Your task to perform on an android device: toggle priority inbox in the gmail app Image 0: 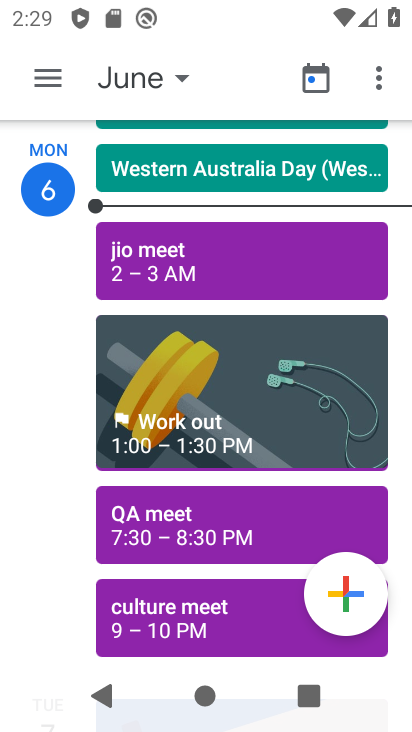
Step 0: press home button
Your task to perform on an android device: toggle priority inbox in the gmail app Image 1: 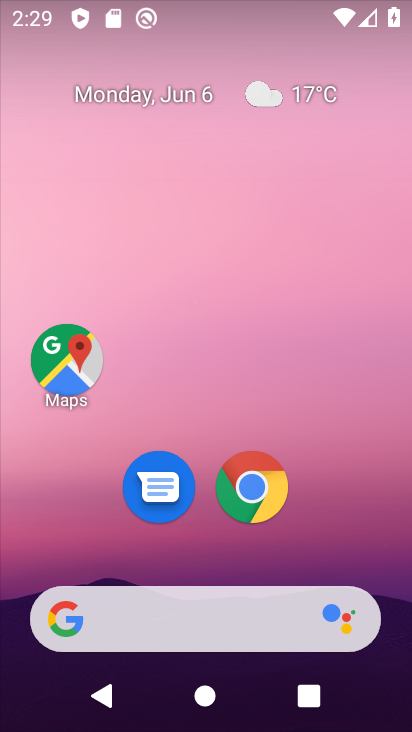
Step 1: drag from (73, 572) to (197, 141)
Your task to perform on an android device: toggle priority inbox in the gmail app Image 2: 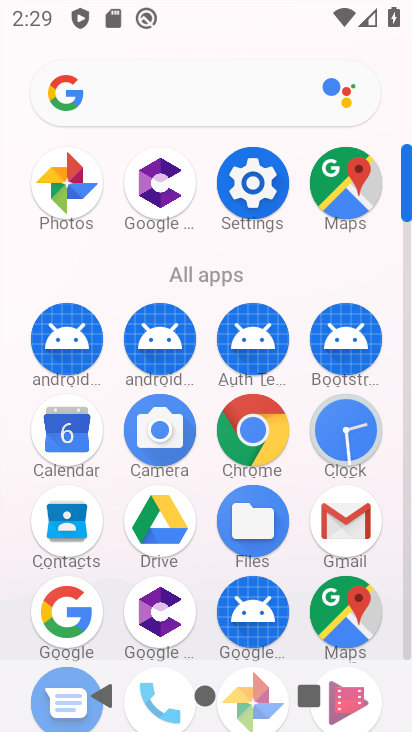
Step 2: click (324, 512)
Your task to perform on an android device: toggle priority inbox in the gmail app Image 3: 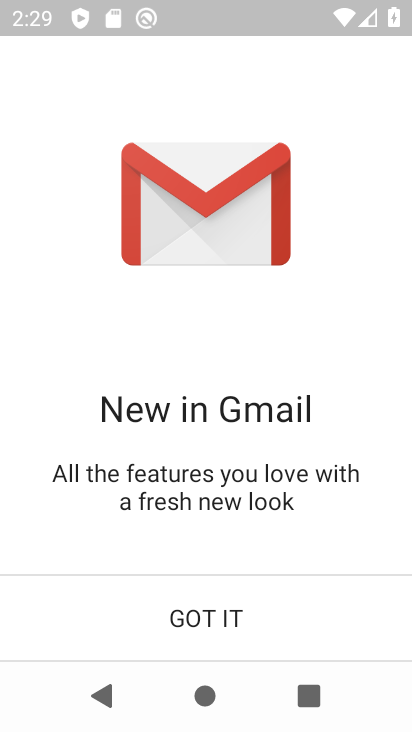
Step 3: click (257, 632)
Your task to perform on an android device: toggle priority inbox in the gmail app Image 4: 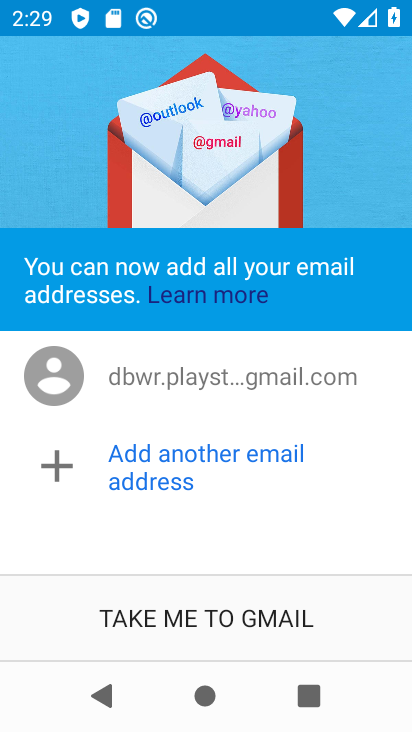
Step 4: click (249, 628)
Your task to perform on an android device: toggle priority inbox in the gmail app Image 5: 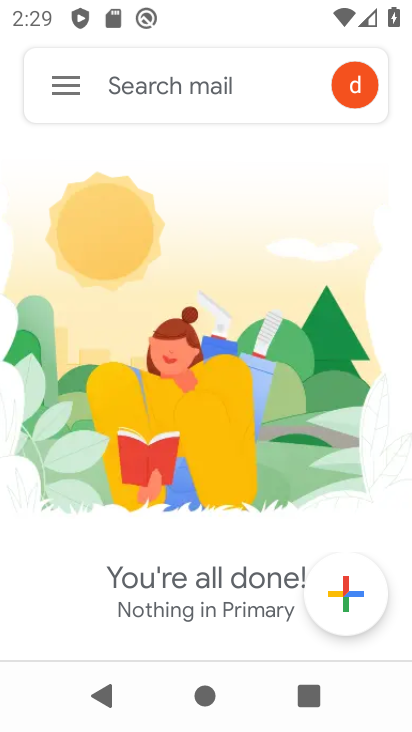
Step 5: click (69, 76)
Your task to perform on an android device: toggle priority inbox in the gmail app Image 6: 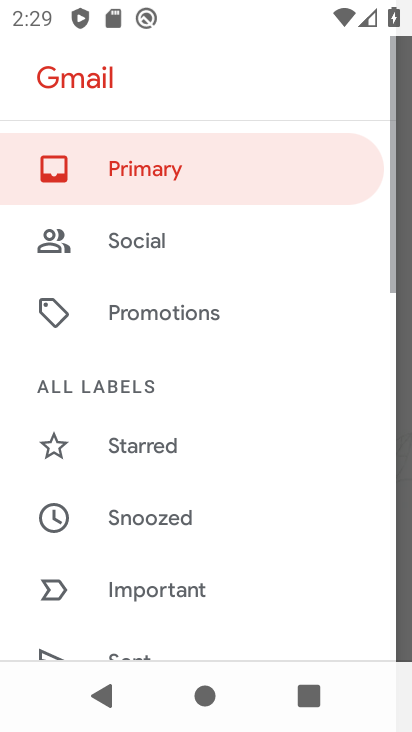
Step 6: drag from (156, 583) to (275, 149)
Your task to perform on an android device: toggle priority inbox in the gmail app Image 7: 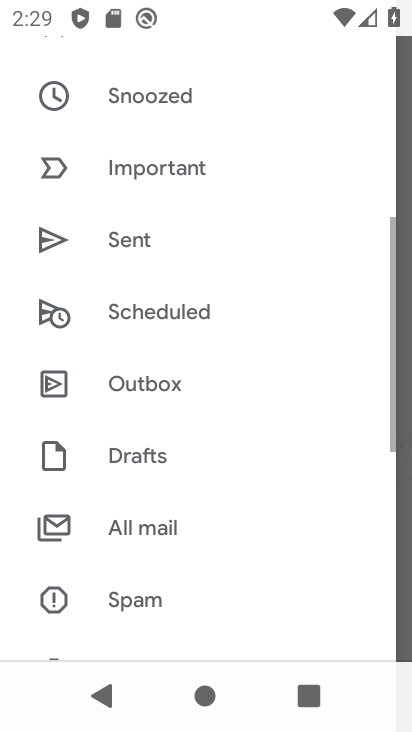
Step 7: drag from (191, 624) to (274, 225)
Your task to perform on an android device: toggle priority inbox in the gmail app Image 8: 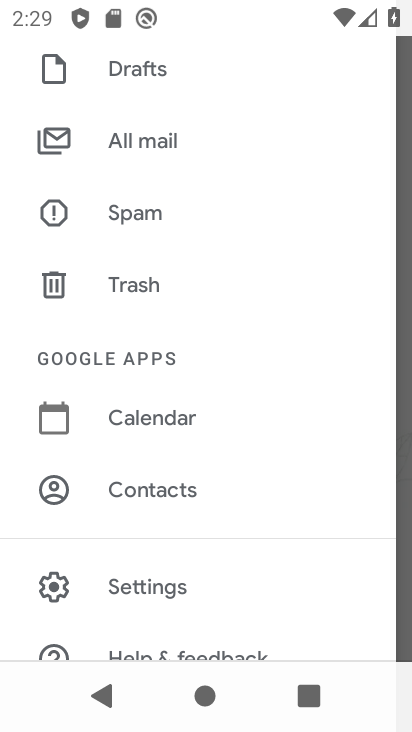
Step 8: drag from (166, 602) to (260, 273)
Your task to perform on an android device: toggle priority inbox in the gmail app Image 9: 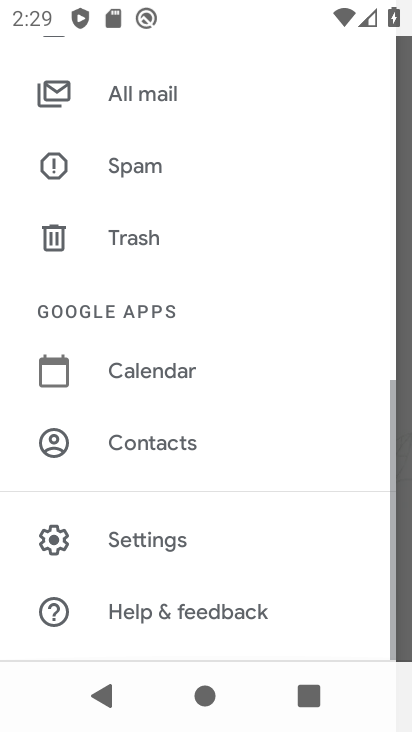
Step 9: click (201, 535)
Your task to perform on an android device: toggle priority inbox in the gmail app Image 10: 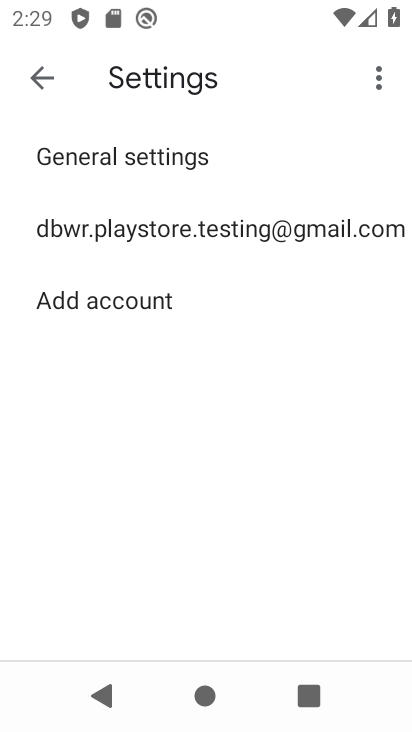
Step 10: click (342, 242)
Your task to perform on an android device: toggle priority inbox in the gmail app Image 11: 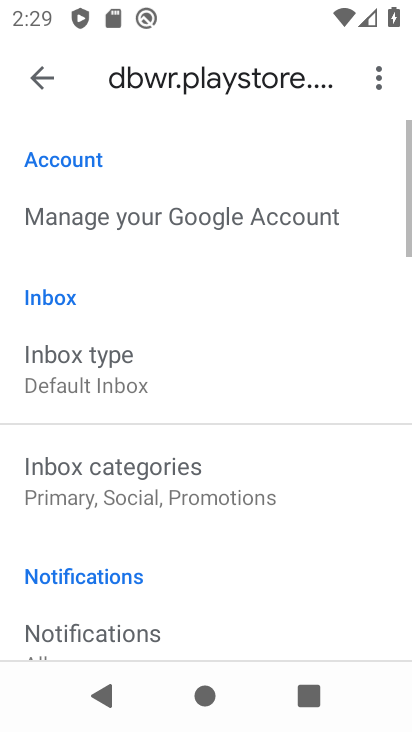
Step 11: drag from (179, 590) to (229, 562)
Your task to perform on an android device: toggle priority inbox in the gmail app Image 12: 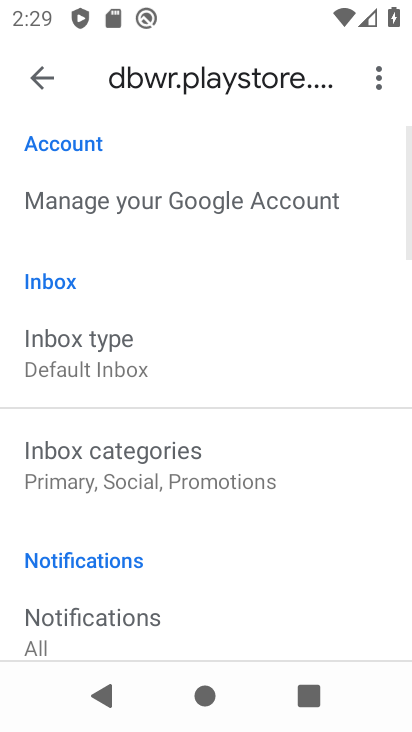
Step 12: click (123, 341)
Your task to perform on an android device: toggle priority inbox in the gmail app Image 13: 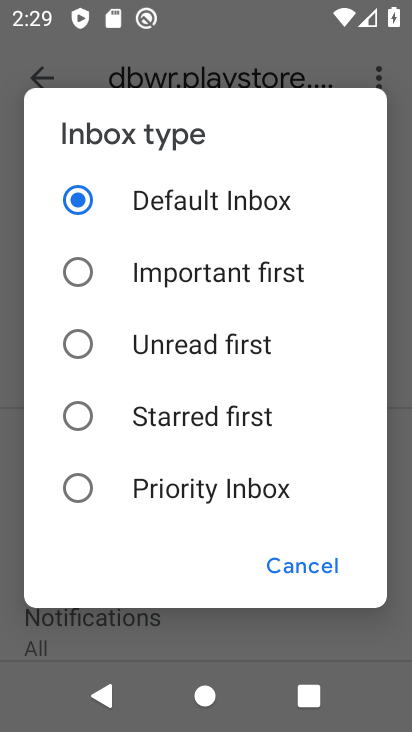
Step 13: click (194, 495)
Your task to perform on an android device: toggle priority inbox in the gmail app Image 14: 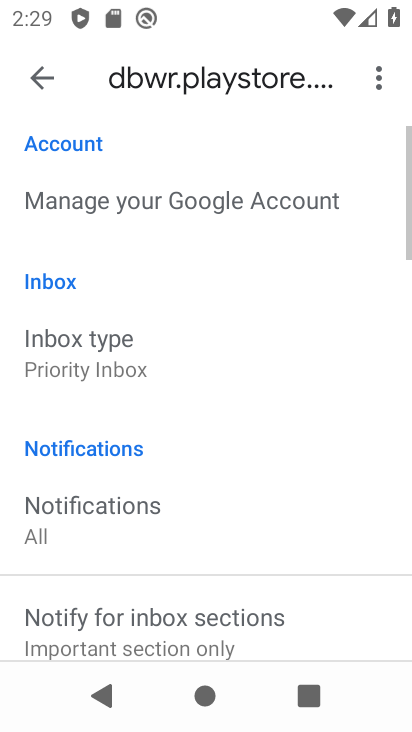
Step 14: task complete